Your task to perform on an android device: Go to accessibility settings Image 0: 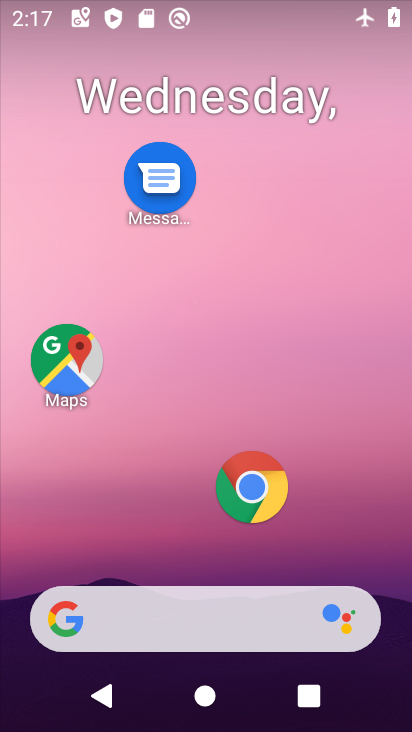
Step 0: drag from (221, 558) to (271, 198)
Your task to perform on an android device: Go to accessibility settings Image 1: 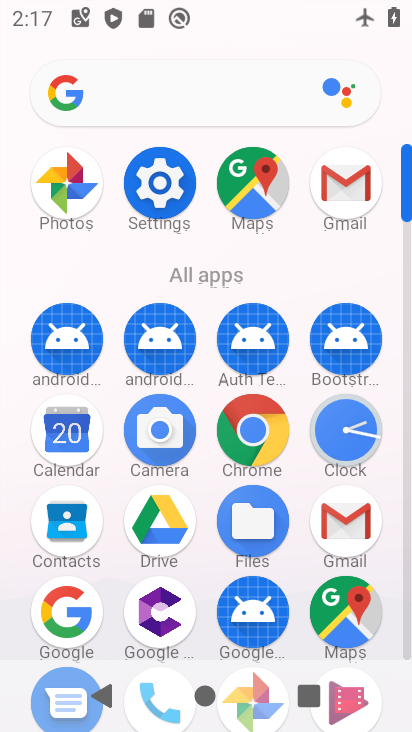
Step 1: click (177, 193)
Your task to perform on an android device: Go to accessibility settings Image 2: 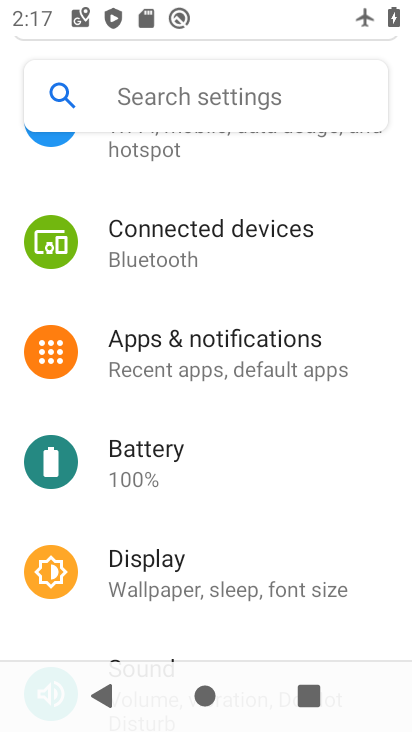
Step 2: drag from (220, 531) to (228, 222)
Your task to perform on an android device: Go to accessibility settings Image 3: 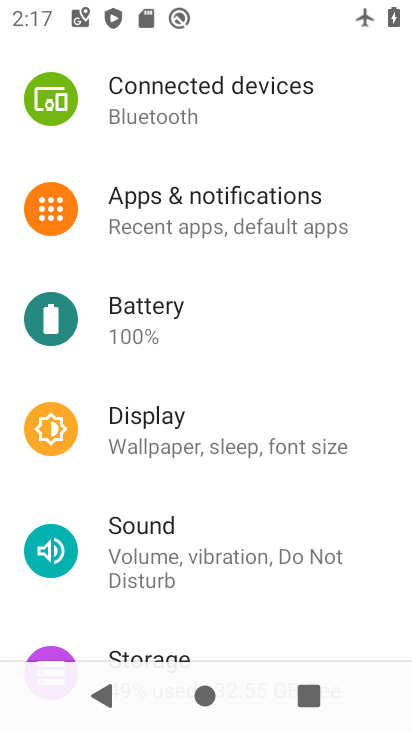
Step 3: drag from (228, 552) to (247, 170)
Your task to perform on an android device: Go to accessibility settings Image 4: 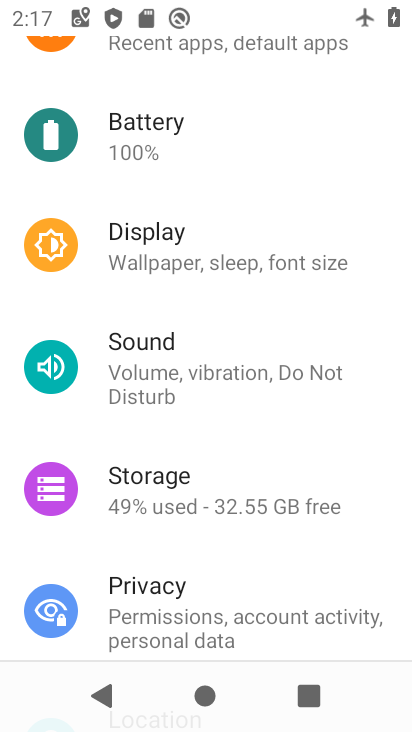
Step 4: drag from (245, 526) to (245, 268)
Your task to perform on an android device: Go to accessibility settings Image 5: 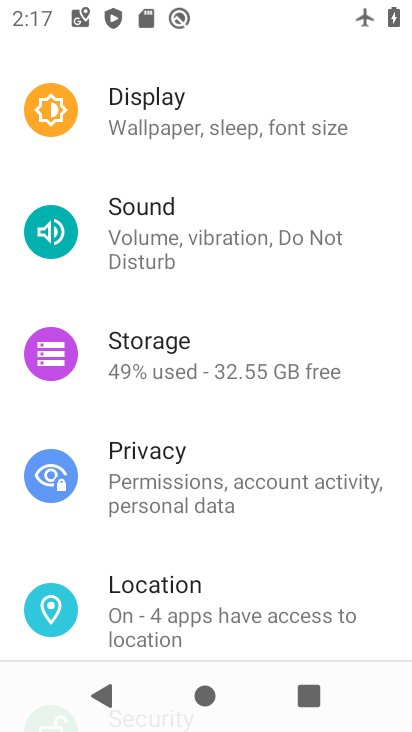
Step 5: drag from (244, 558) to (267, 216)
Your task to perform on an android device: Go to accessibility settings Image 6: 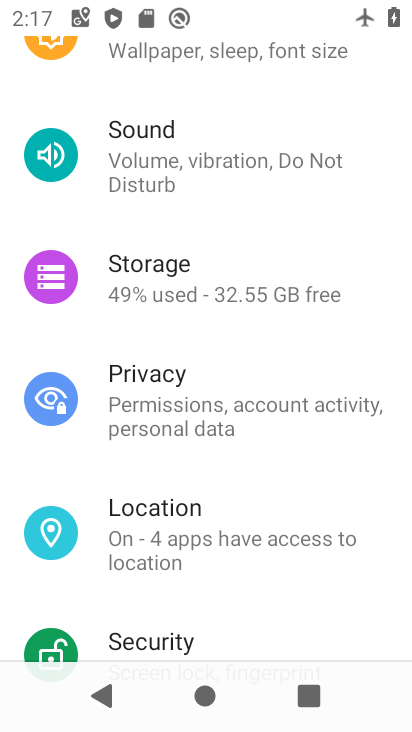
Step 6: drag from (255, 579) to (259, 203)
Your task to perform on an android device: Go to accessibility settings Image 7: 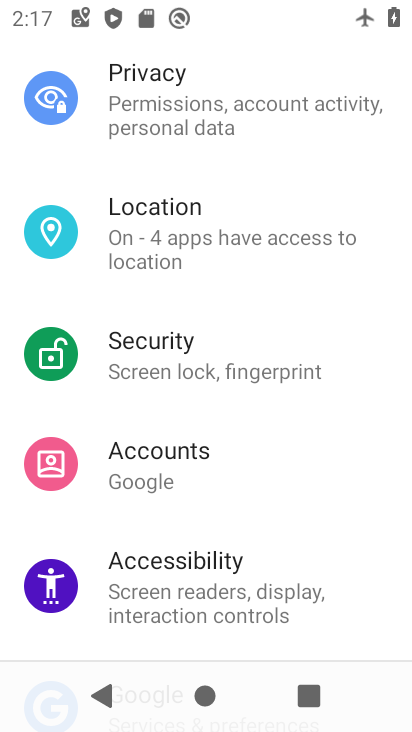
Step 7: click (250, 556)
Your task to perform on an android device: Go to accessibility settings Image 8: 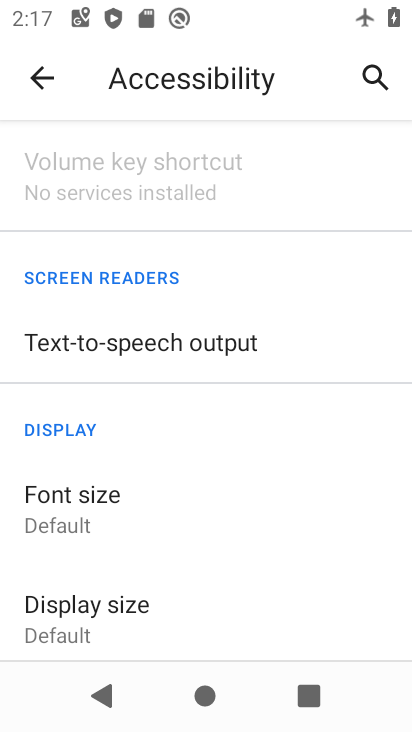
Step 8: task complete